Your task to perform on an android device: Open Yahoo.com Image 0: 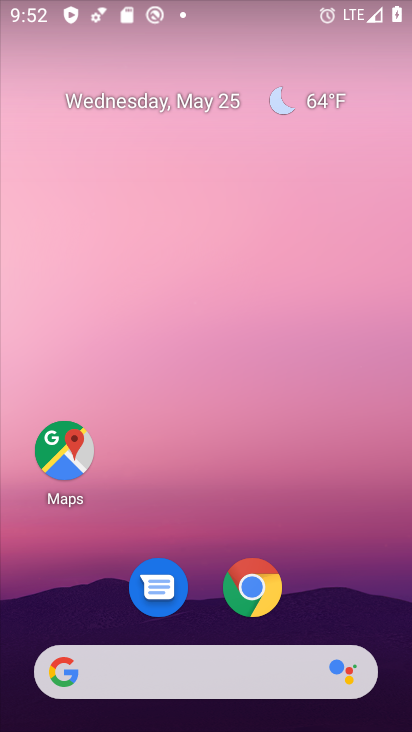
Step 0: click (269, 598)
Your task to perform on an android device: Open Yahoo.com Image 1: 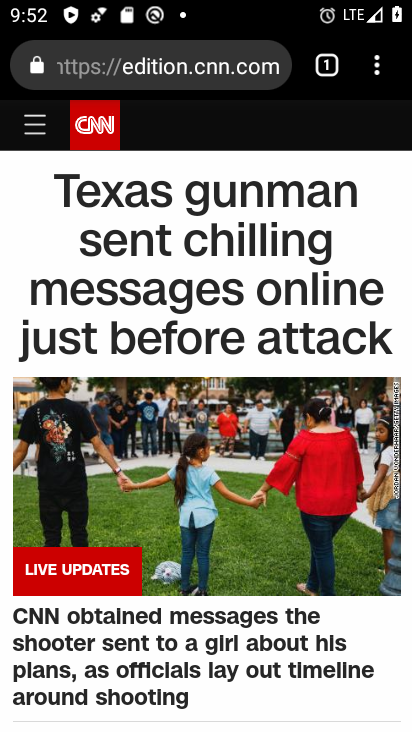
Step 1: drag from (393, 62) to (322, 133)
Your task to perform on an android device: Open Yahoo.com Image 2: 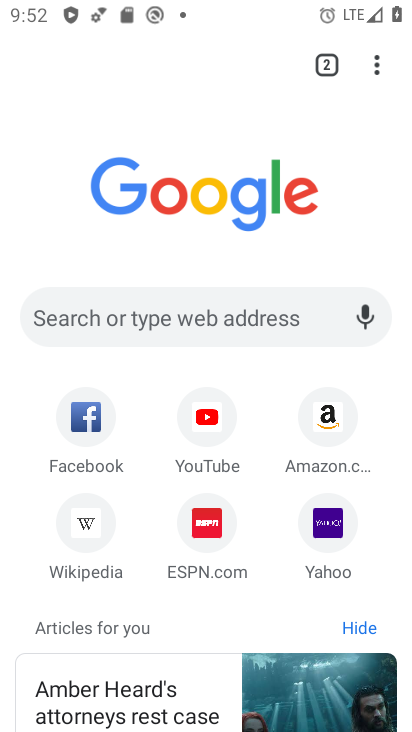
Step 2: click (338, 537)
Your task to perform on an android device: Open Yahoo.com Image 3: 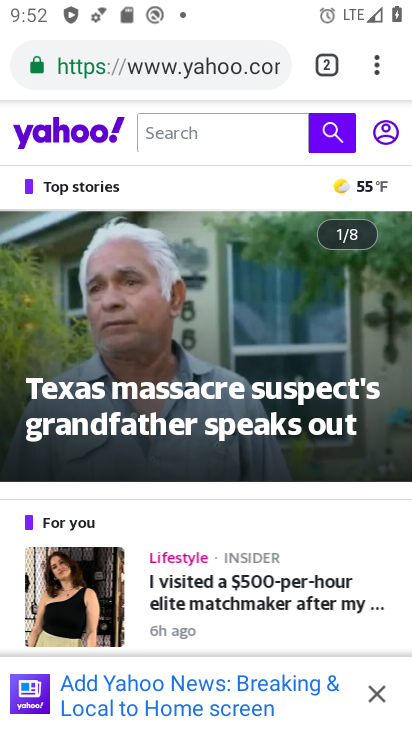
Step 3: task complete